Your task to perform on an android device: Open Chrome and go to the settings page Image 0: 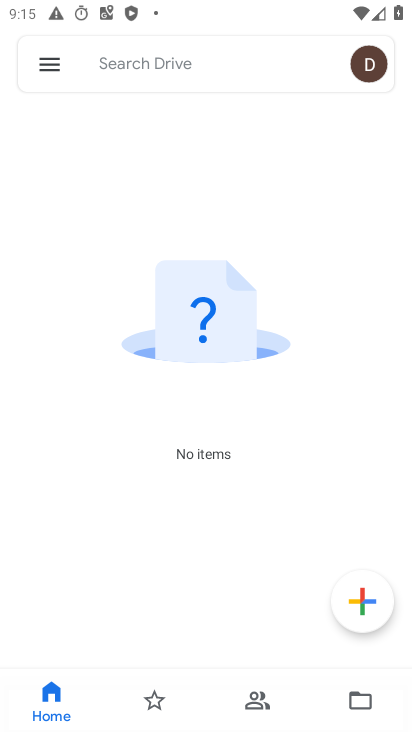
Step 0: press home button
Your task to perform on an android device: Open Chrome and go to the settings page Image 1: 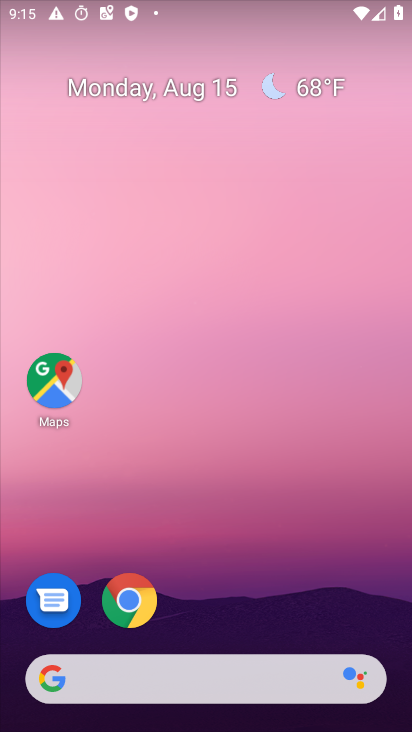
Step 1: drag from (223, 649) to (225, 115)
Your task to perform on an android device: Open Chrome and go to the settings page Image 2: 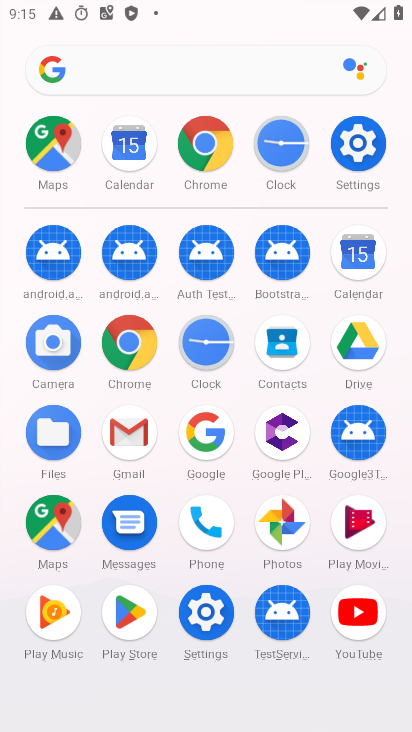
Step 2: click (131, 338)
Your task to perform on an android device: Open Chrome and go to the settings page Image 3: 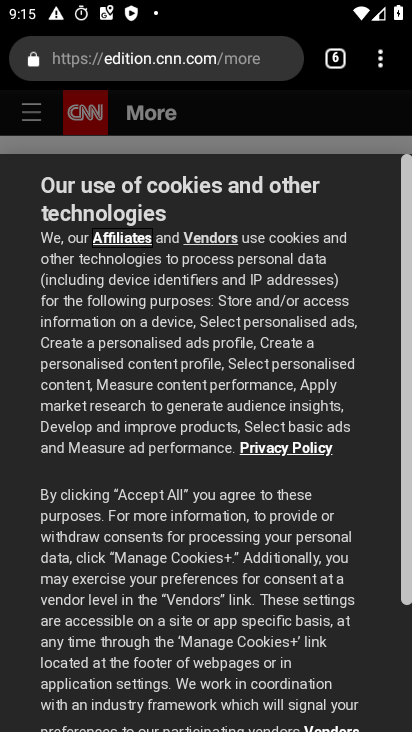
Step 3: click (381, 67)
Your task to perform on an android device: Open Chrome and go to the settings page Image 4: 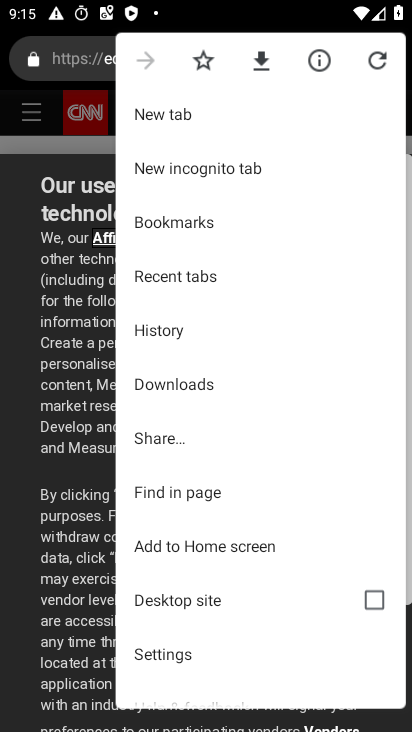
Step 4: click (149, 650)
Your task to perform on an android device: Open Chrome and go to the settings page Image 5: 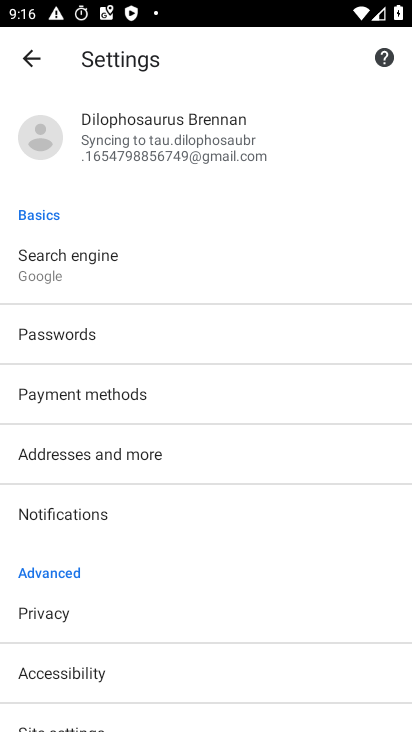
Step 5: task complete